Your task to perform on an android device: Is it going to rain today? Image 0: 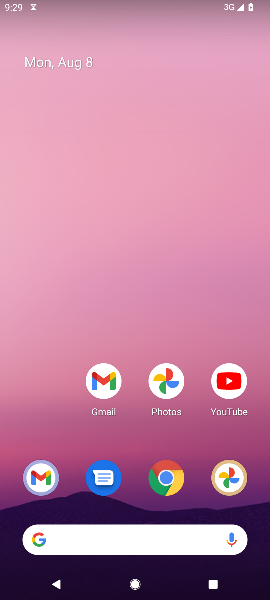
Step 0: click (76, 540)
Your task to perform on an android device: Is it going to rain today? Image 1: 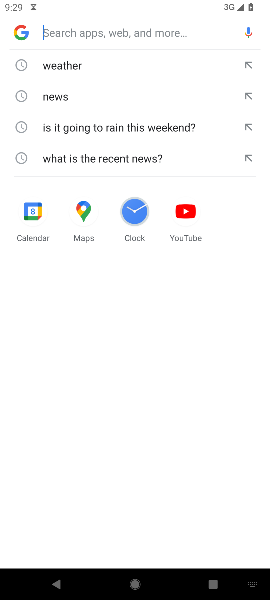
Step 1: click (58, 60)
Your task to perform on an android device: Is it going to rain today? Image 2: 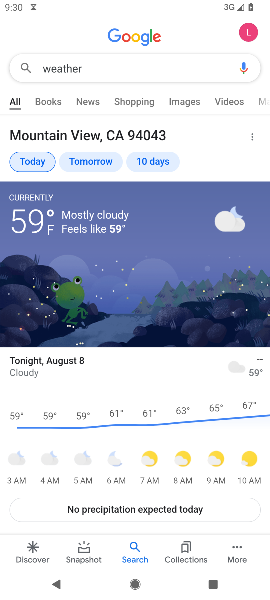
Step 2: task complete